Your task to perform on an android device: What's the weather? Image 0: 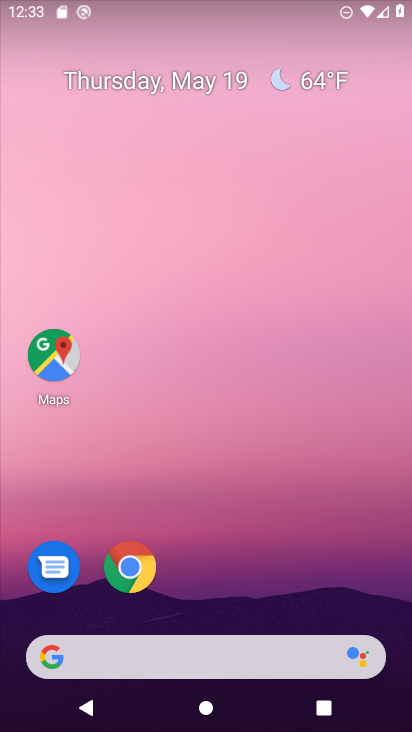
Step 0: drag from (219, 605) to (229, 170)
Your task to perform on an android device: What's the weather? Image 1: 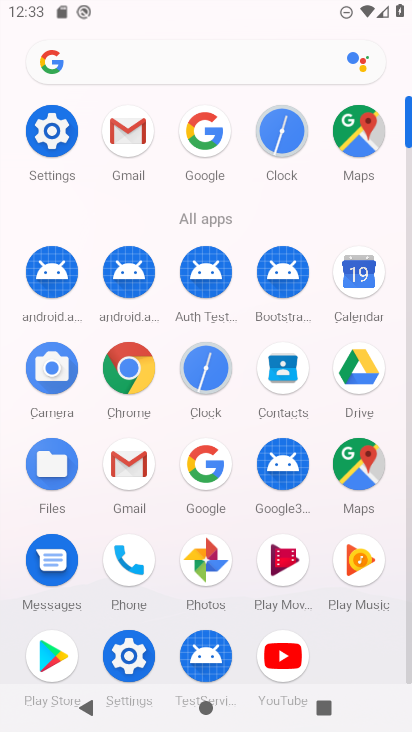
Step 1: click (210, 471)
Your task to perform on an android device: What's the weather? Image 2: 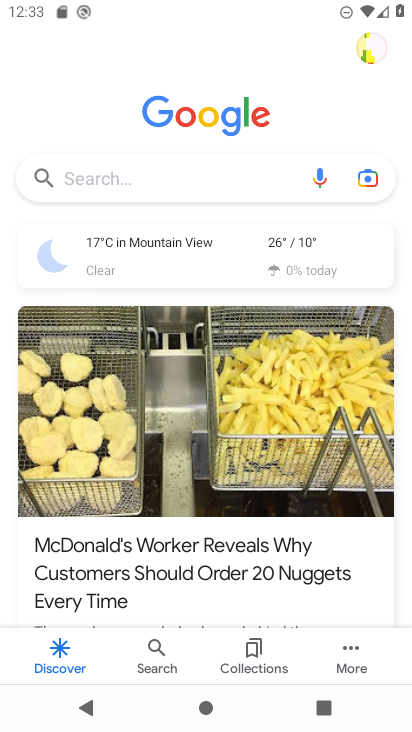
Step 2: click (166, 182)
Your task to perform on an android device: What's the weather? Image 3: 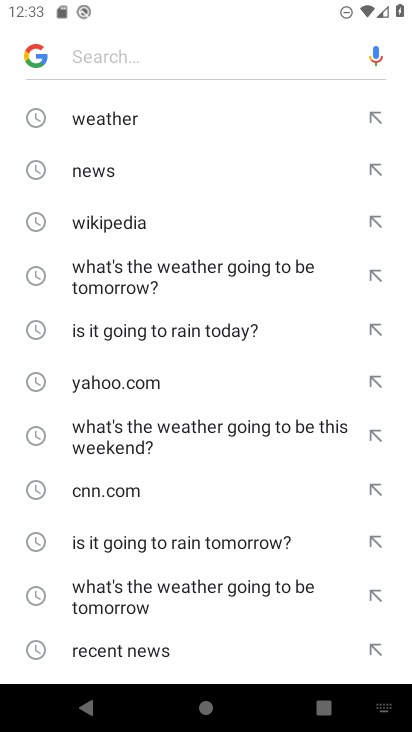
Step 3: click (133, 112)
Your task to perform on an android device: What's the weather? Image 4: 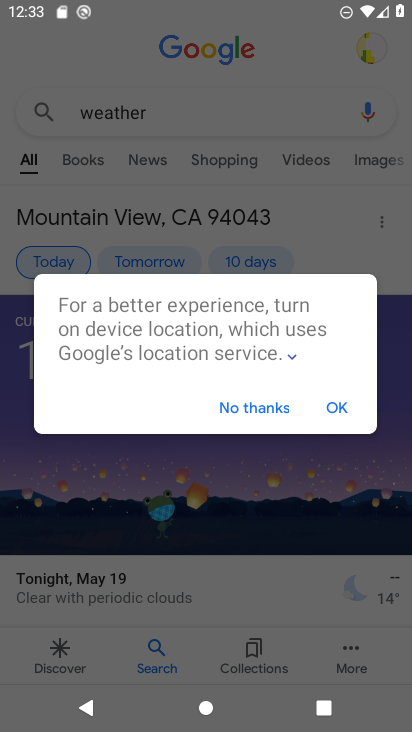
Step 4: click (342, 412)
Your task to perform on an android device: What's the weather? Image 5: 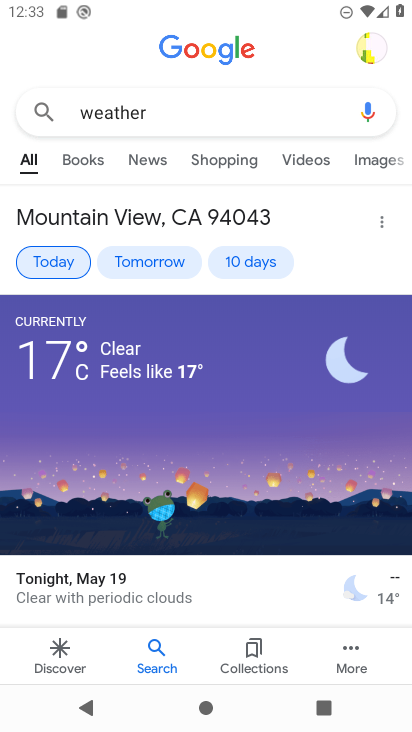
Step 5: task complete